Your task to perform on an android device: turn off picture-in-picture Image 0: 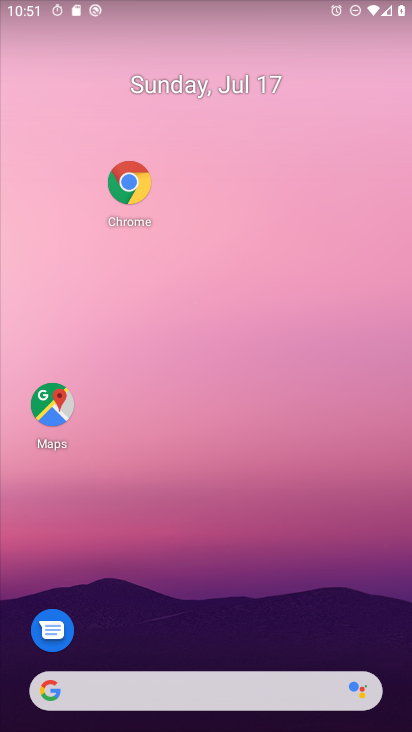
Step 0: drag from (318, 622) to (307, 314)
Your task to perform on an android device: turn off picture-in-picture Image 1: 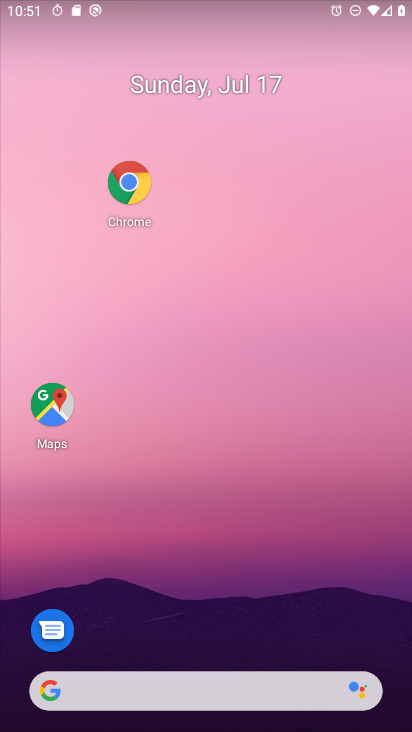
Step 1: drag from (210, 461) to (193, 182)
Your task to perform on an android device: turn off picture-in-picture Image 2: 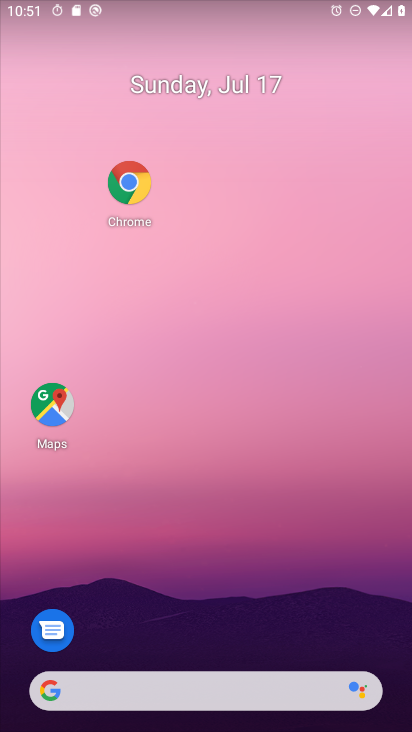
Step 2: drag from (191, 617) to (398, 40)
Your task to perform on an android device: turn off picture-in-picture Image 3: 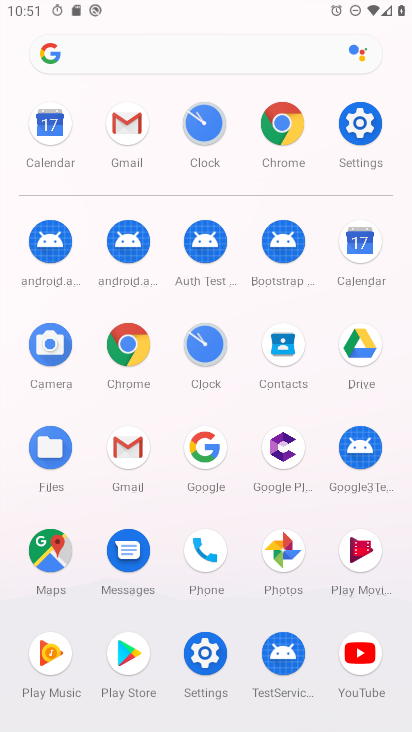
Step 3: click (361, 119)
Your task to perform on an android device: turn off picture-in-picture Image 4: 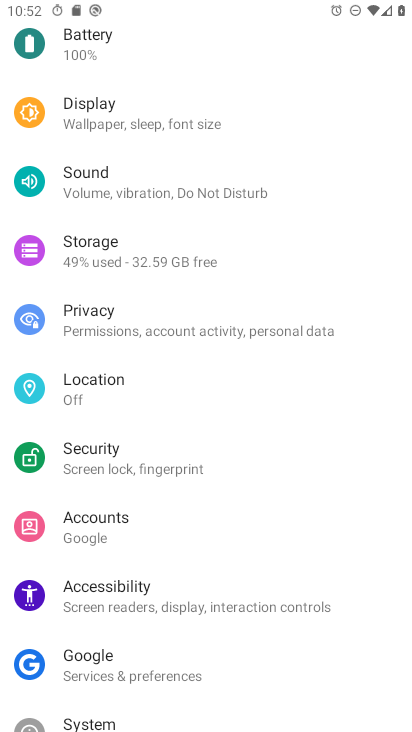
Step 4: drag from (204, 91) to (204, 610)
Your task to perform on an android device: turn off picture-in-picture Image 5: 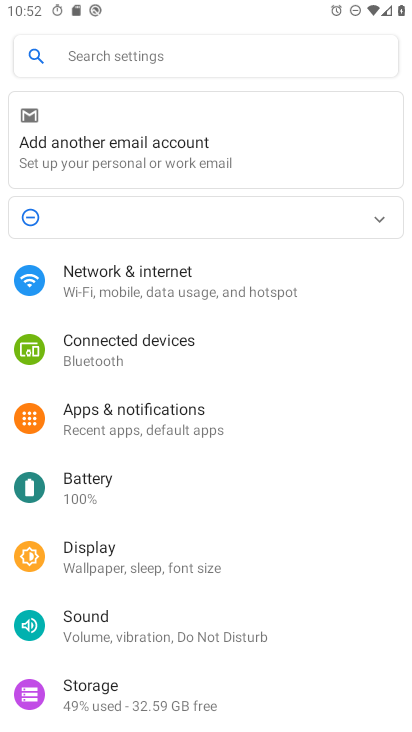
Step 5: click (181, 418)
Your task to perform on an android device: turn off picture-in-picture Image 6: 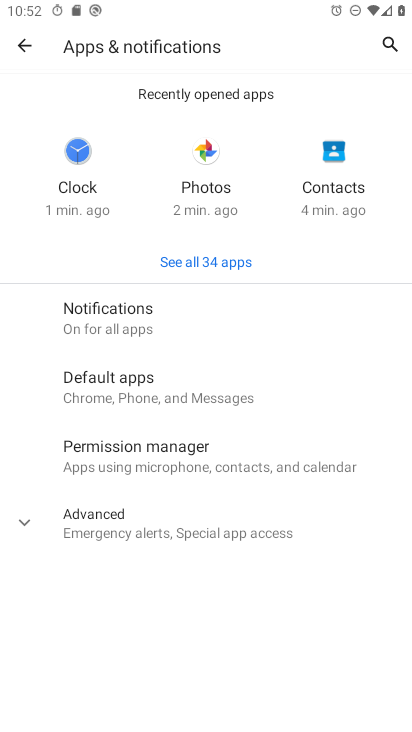
Step 6: click (149, 528)
Your task to perform on an android device: turn off picture-in-picture Image 7: 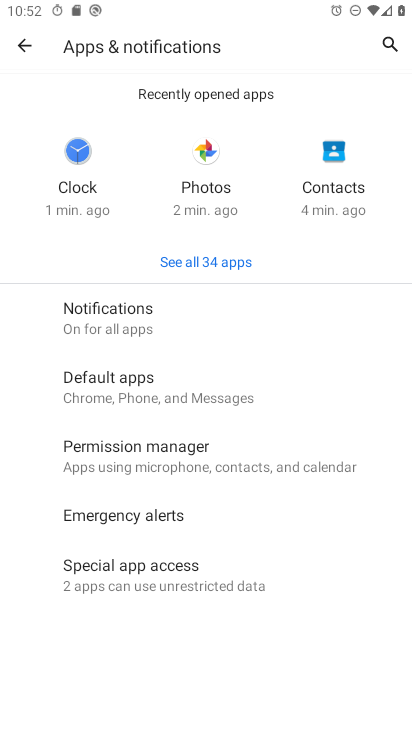
Step 7: click (149, 582)
Your task to perform on an android device: turn off picture-in-picture Image 8: 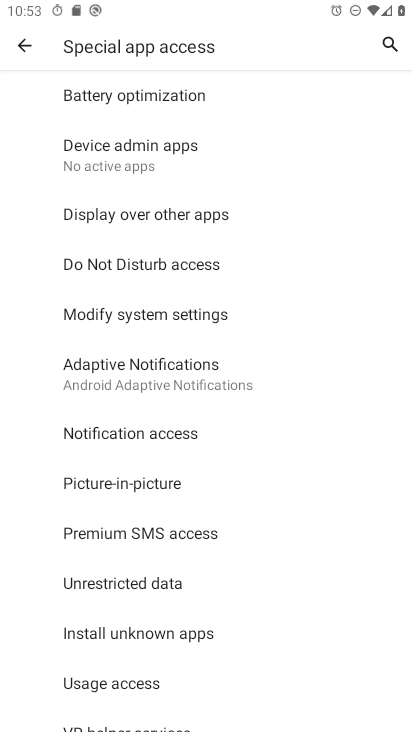
Step 8: click (158, 482)
Your task to perform on an android device: turn off picture-in-picture Image 9: 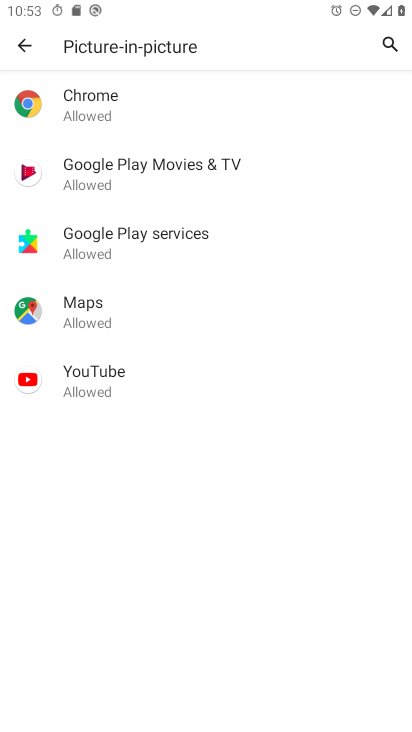
Step 9: click (95, 372)
Your task to perform on an android device: turn off picture-in-picture Image 10: 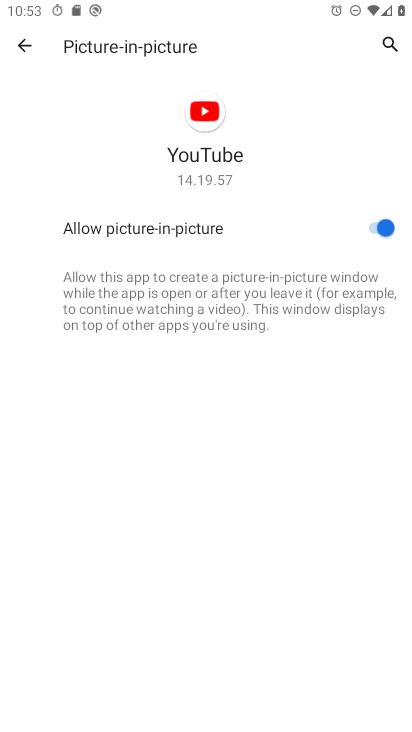
Step 10: click (376, 234)
Your task to perform on an android device: turn off picture-in-picture Image 11: 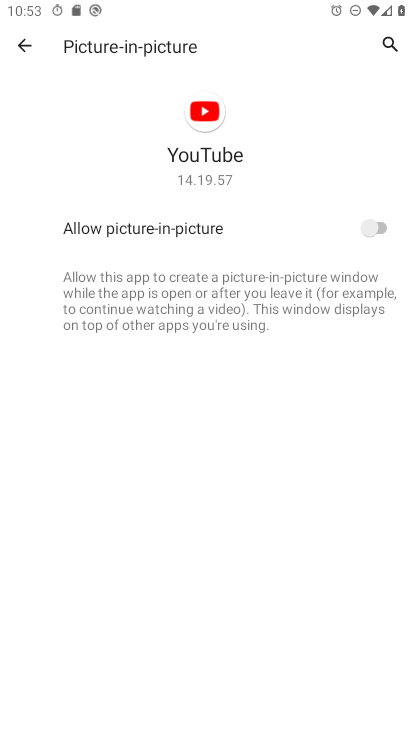
Step 11: task complete